Your task to perform on an android device: Search for sony triple a on ebay, select the first entry, and add it to the cart. Image 0: 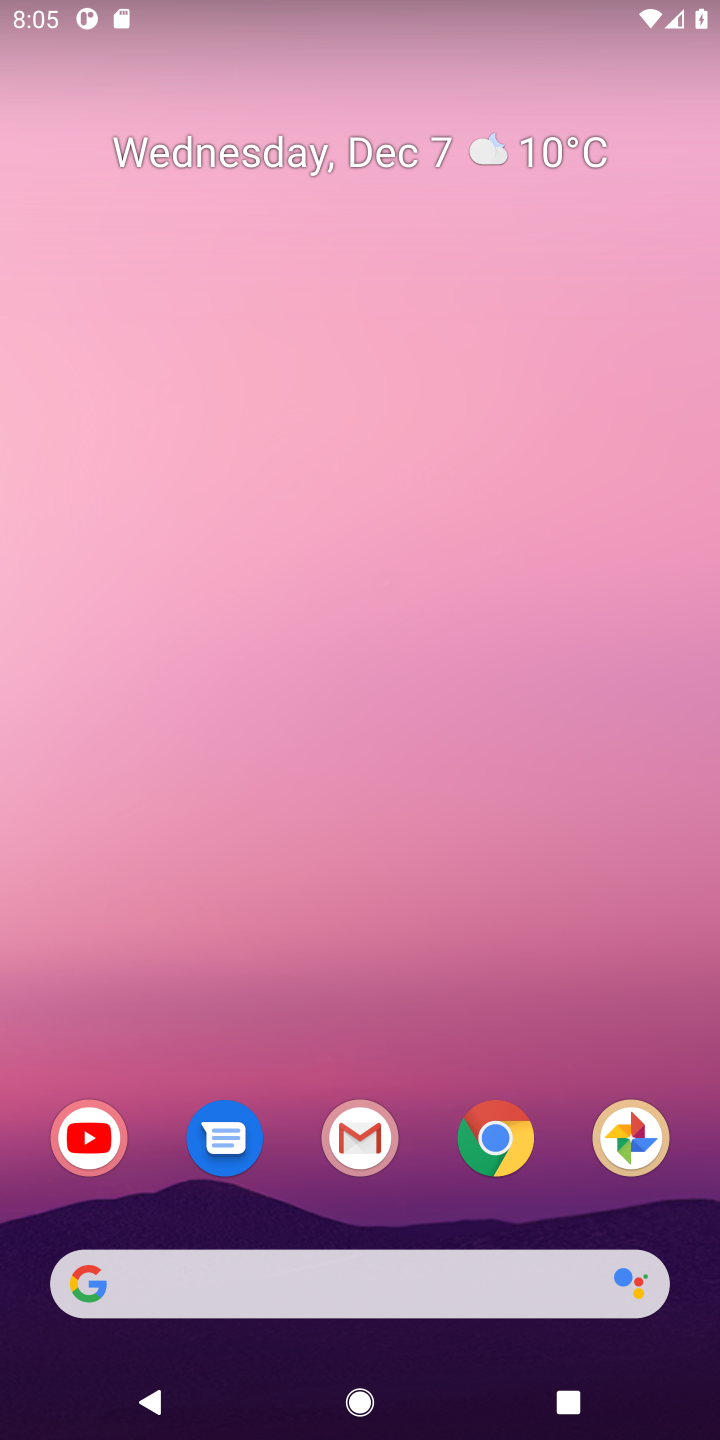
Step 0: press home button
Your task to perform on an android device: Search for sony triple a on ebay, select the first entry, and add it to the cart. Image 1: 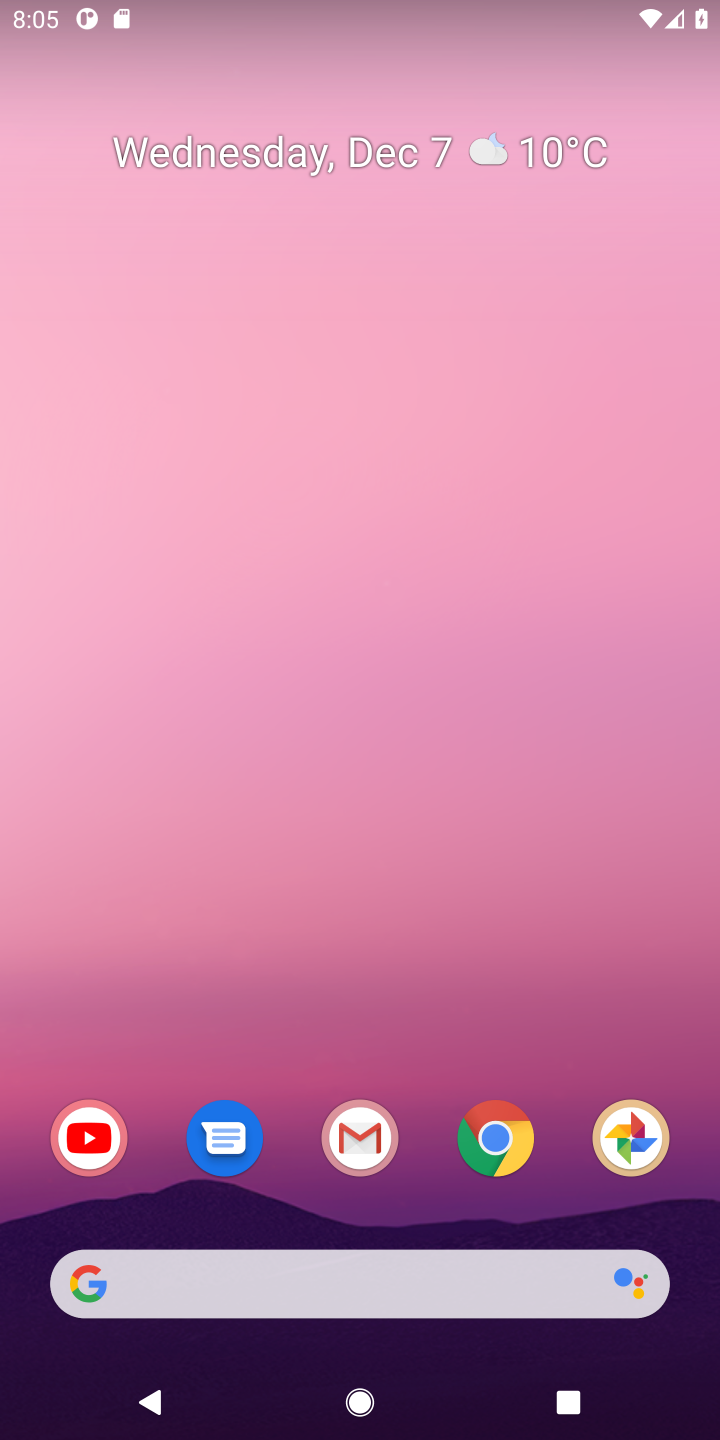
Step 1: click (134, 1275)
Your task to perform on an android device: Search for sony triple a on ebay, select the first entry, and add it to the cart. Image 2: 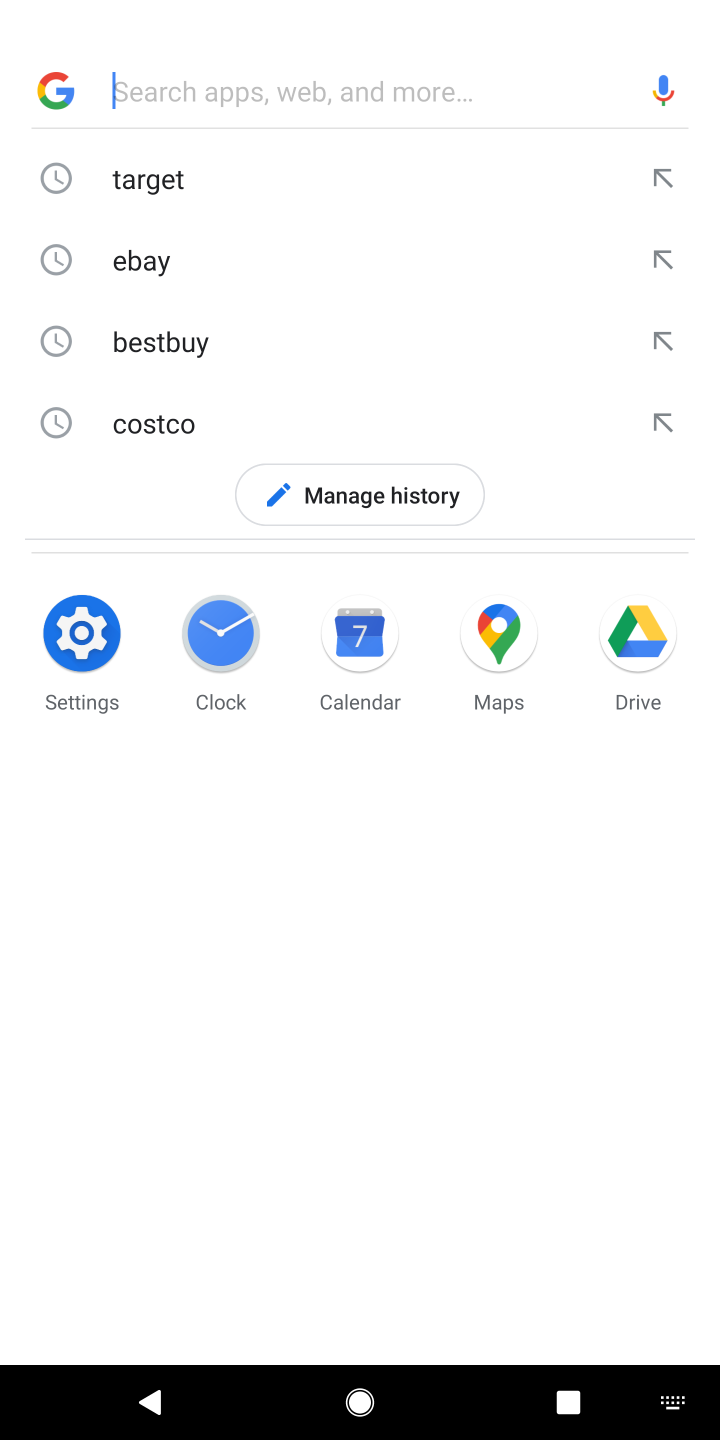
Step 2: type "ebay"
Your task to perform on an android device: Search for sony triple a on ebay, select the first entry, and add it to the cart. Image 3: 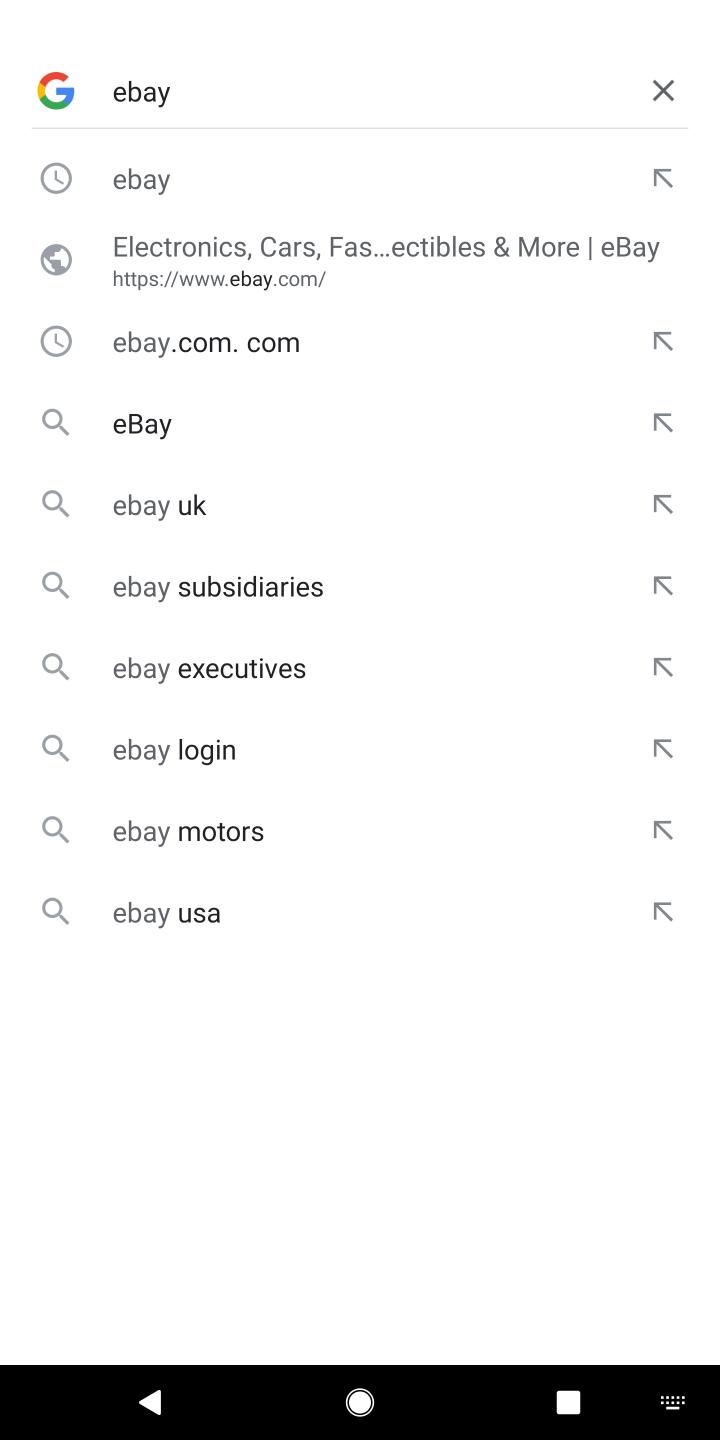
Step 3: press enter
Your task to perform on an android device: Search for sony triple a on ebay, select the first entry, and add it to the cart. Image 4: 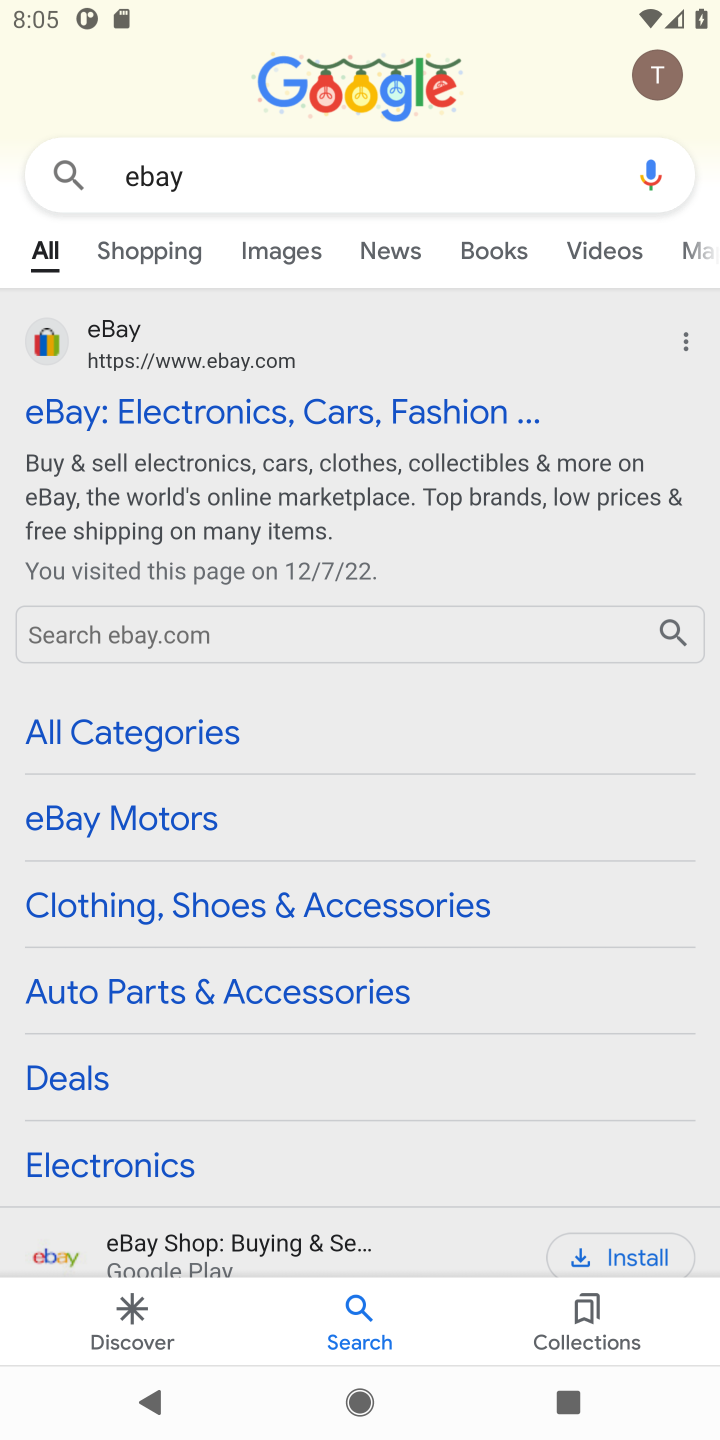
Step 4: click (301, 413)
Your task to perform on an android device: Search for sony triple a on ebay, select the first entry, and add it to the cart. Image 5: 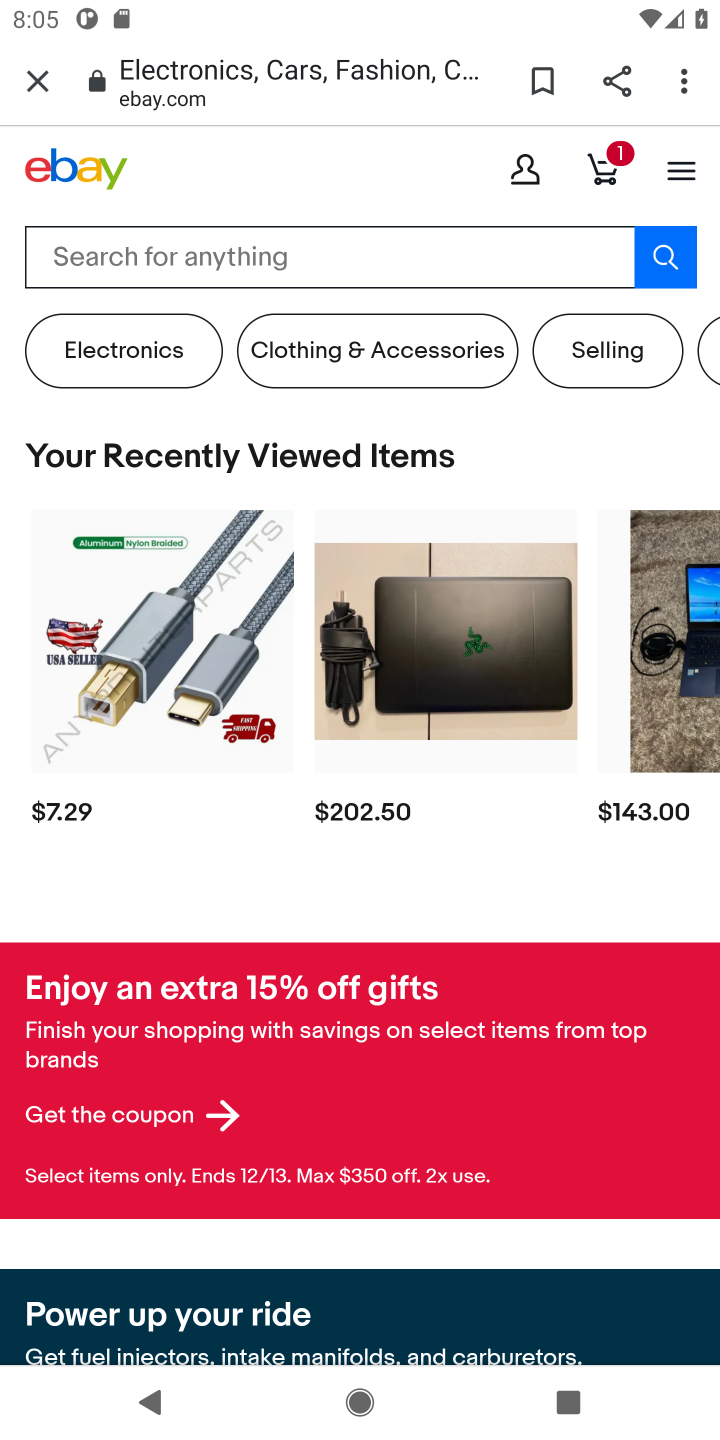
Step 5: click (265, 259)
Your task to perform on an android device: Search for sony triple a on ebay, select the first entry, and add it to the cart. Image 6: 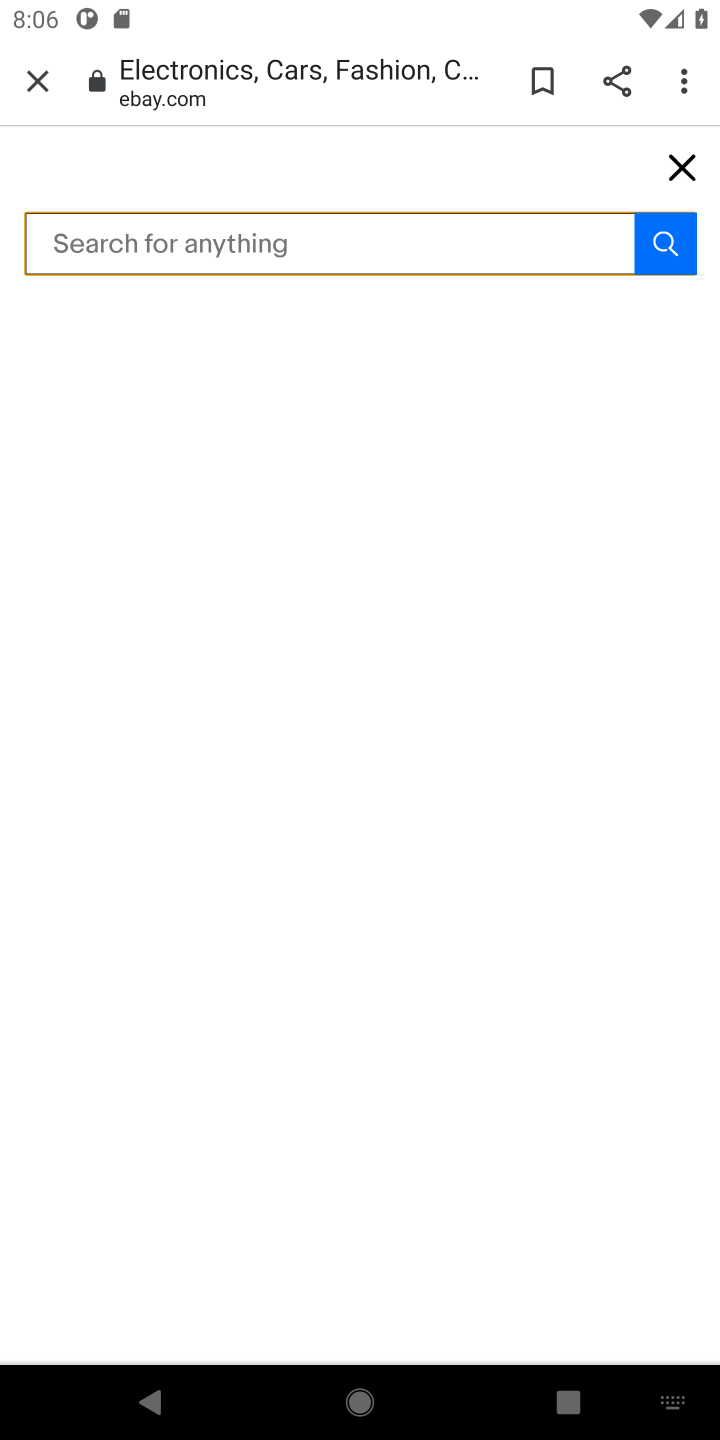
Step 6: type "sony triple a"
Your task to perform on an android device: Search for sony triple a on ebay, select the first entry, and add it to the cart. Image 7: 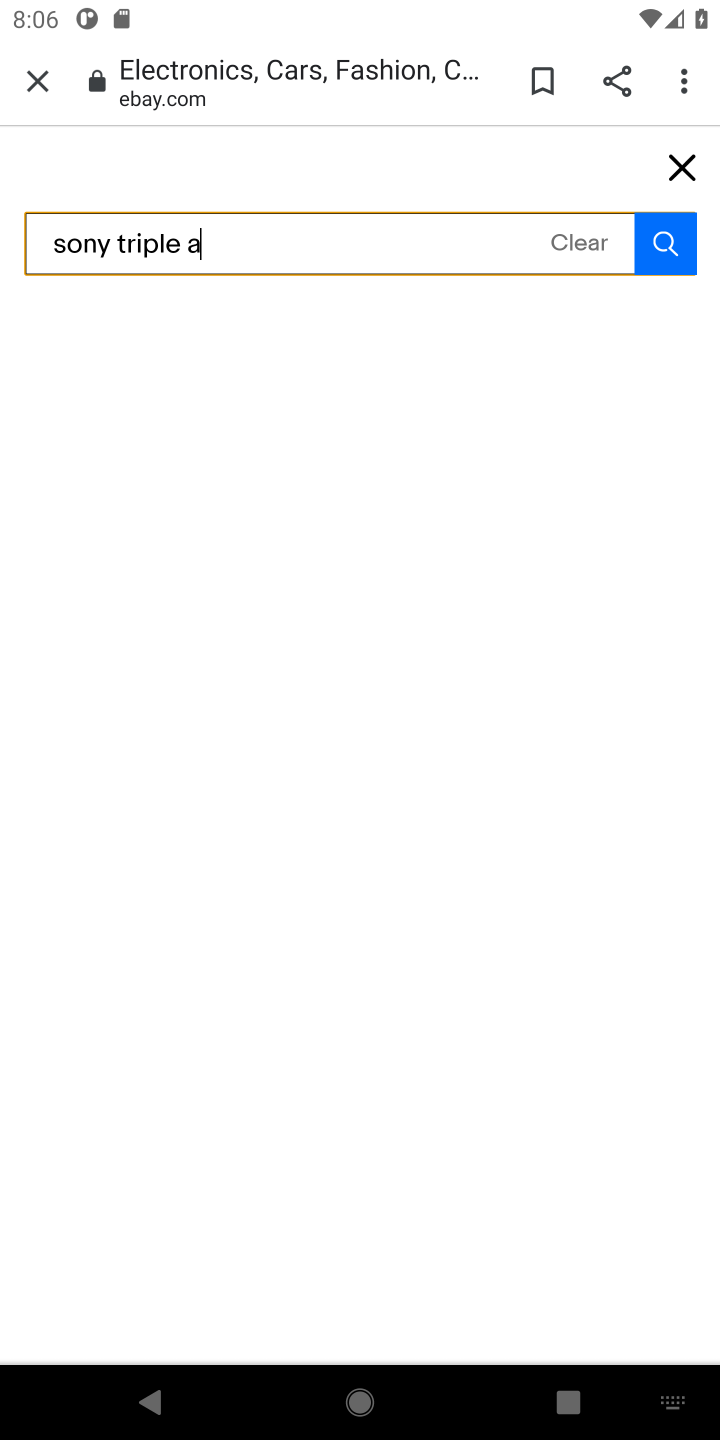
Step 7: press enter
Your task to perform on an android device: Search for sony triple a on ebay, select the first entry, and add it to the cart. Image 8: 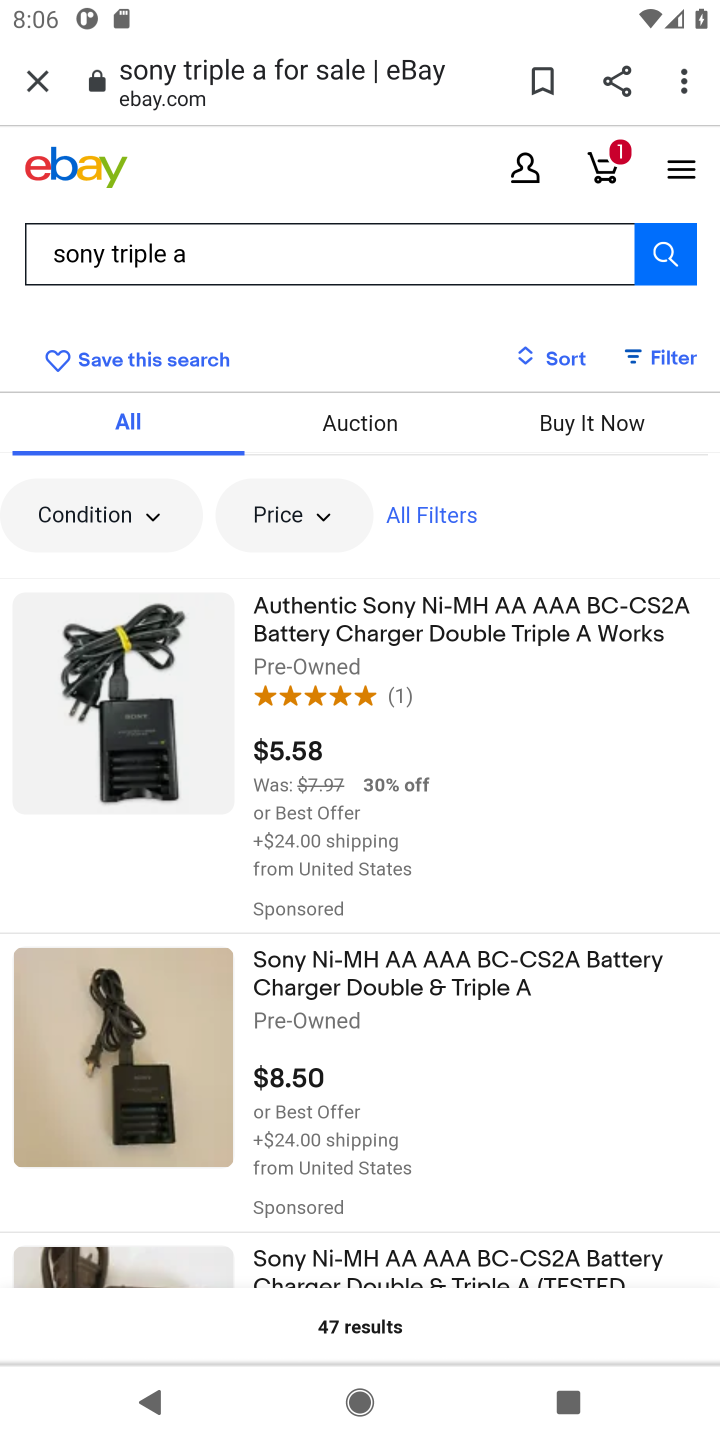
Step 8: click (437, 620)
Your task to perform on an android device: Search for sony triple a on ebay, select the first entry, and add it to the cart. Image 9: 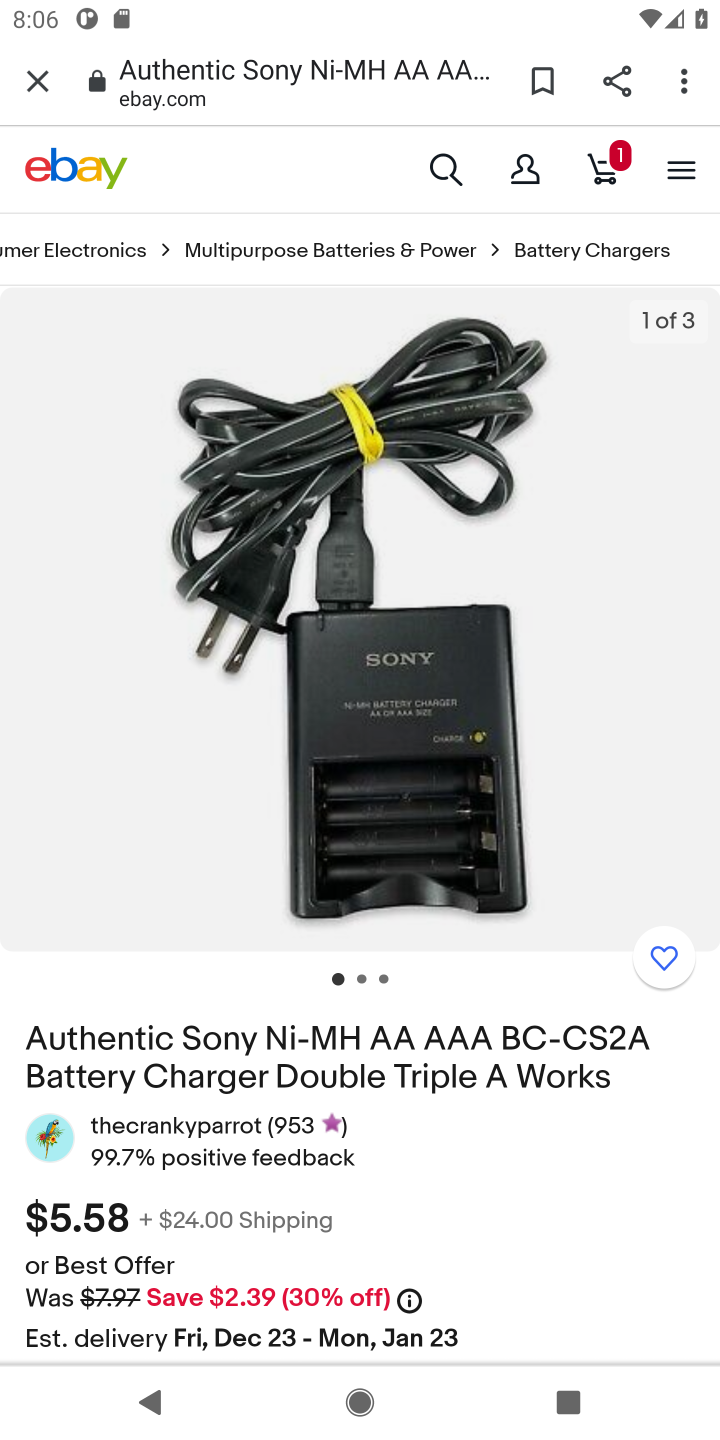
Step 9: drag from (480, 1089) to (490, 501)
Your task to perform on an android device: Search for sony triple a on ebay, select the first entry, and add it to the cart. Image 10: 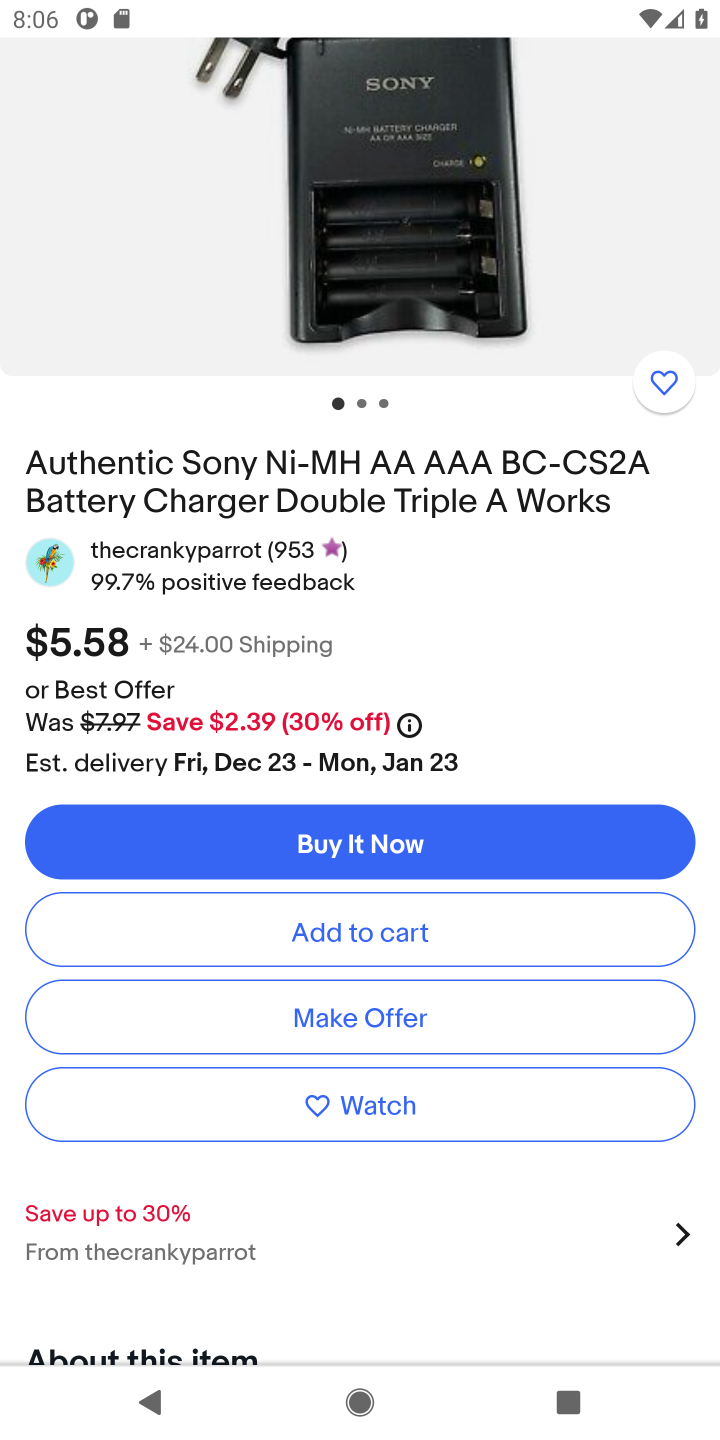
Step 10: click (429, 931)
Your task to perform on an android device: Search for sony triple a on ebay, select the first entry, and add it to the cart. Image 11: 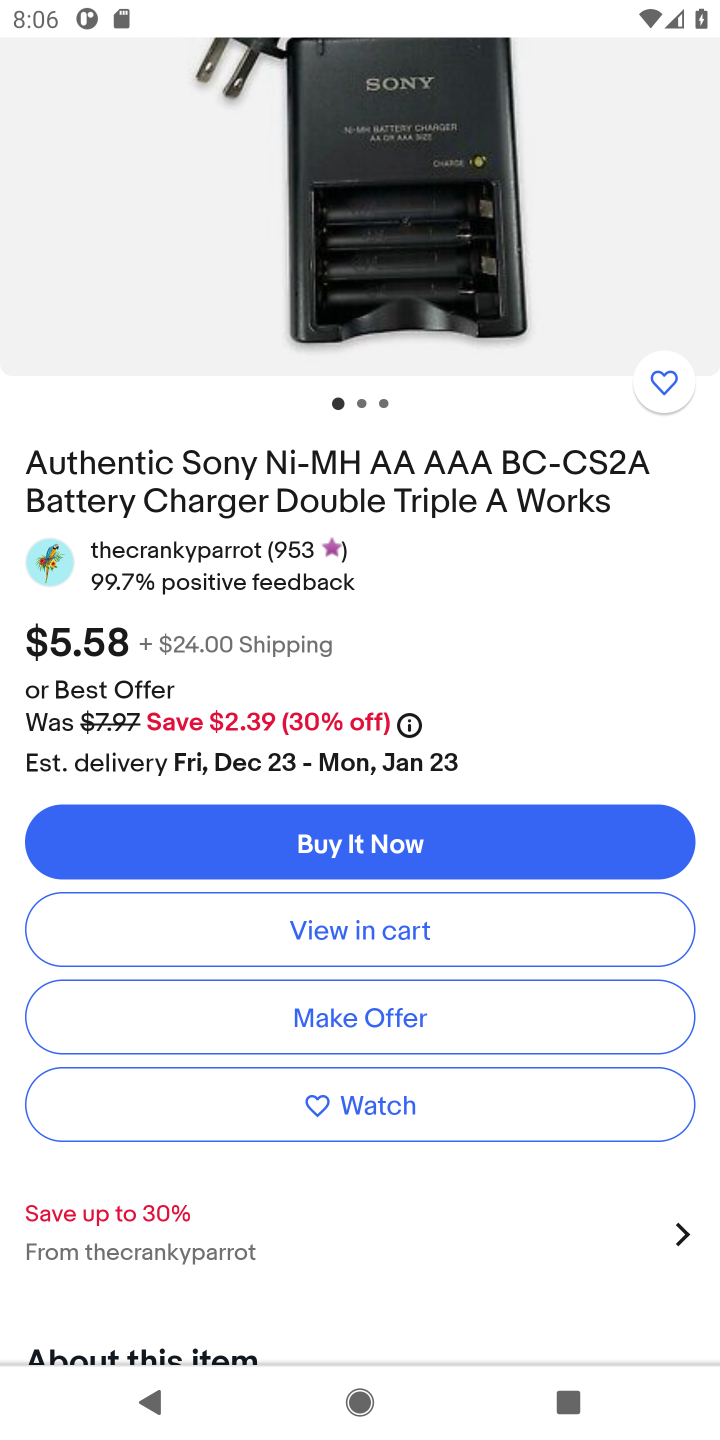
Step 11: task complete